Your task to perform on an android device: change the clock style Image 0: 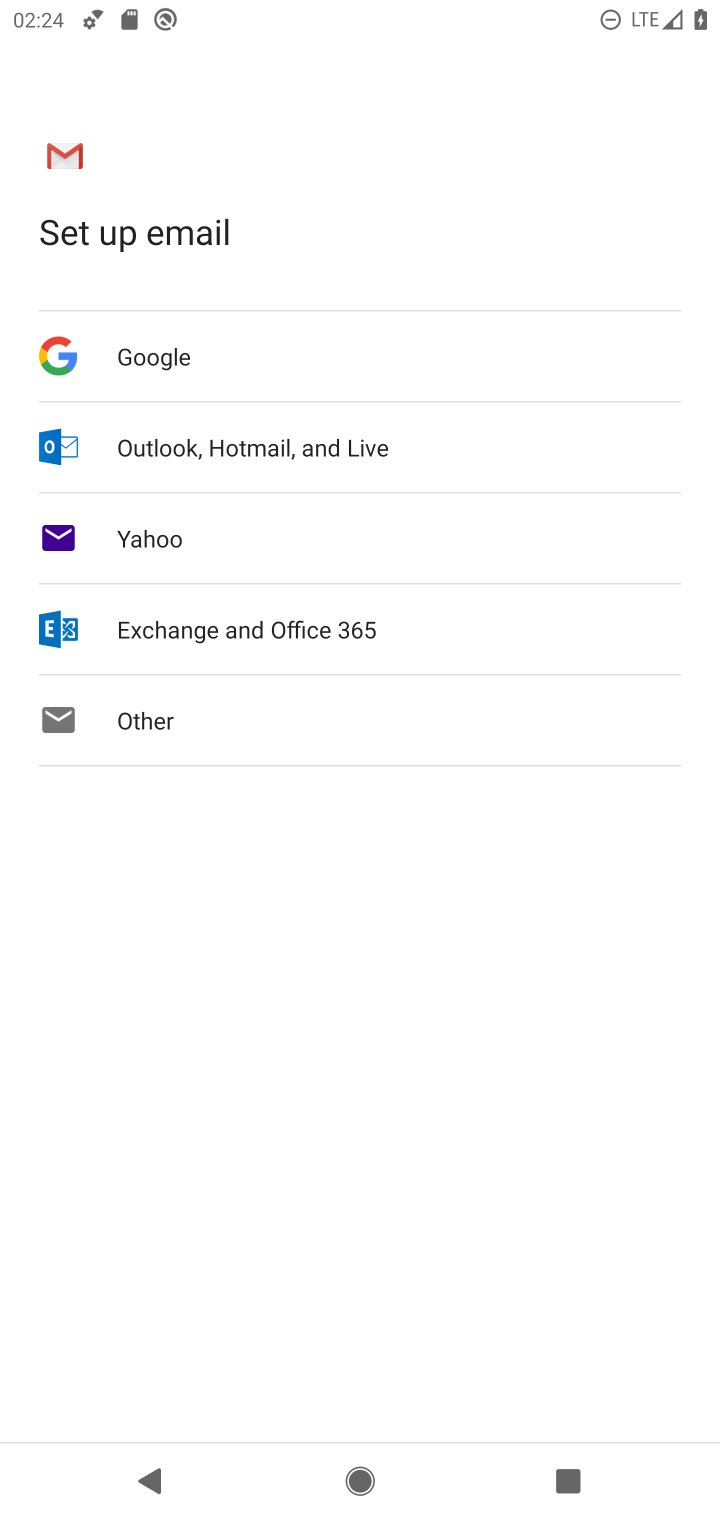
Step 0: press home button
Your task to perform on an android device: change the clock style Image 1: 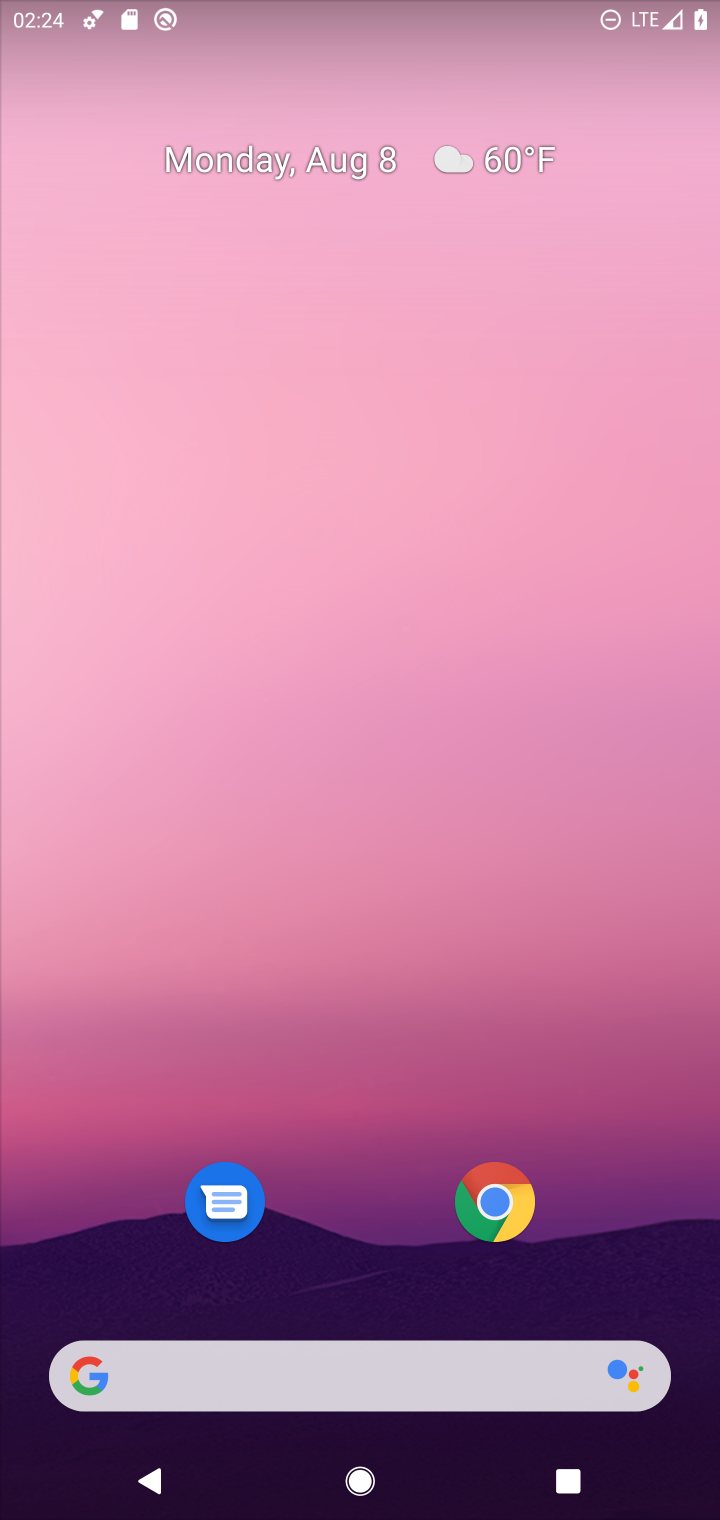
Step 1: drag from (608, 1269) to (563, 179)
Your task to perform on an android device: change the clock style Image 2: 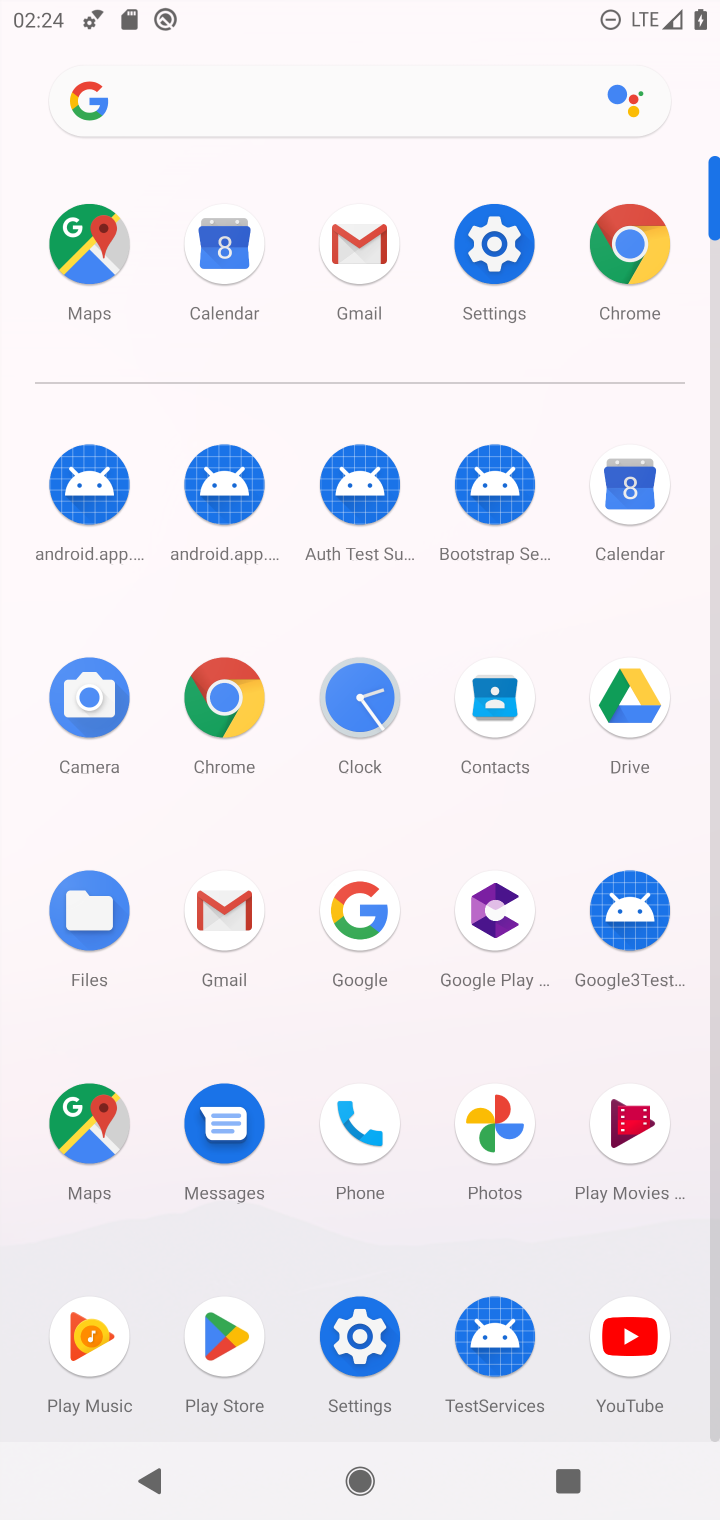
Step 2: click (359, 689)
Your task to perform on an android device: change the clock style Image 3: 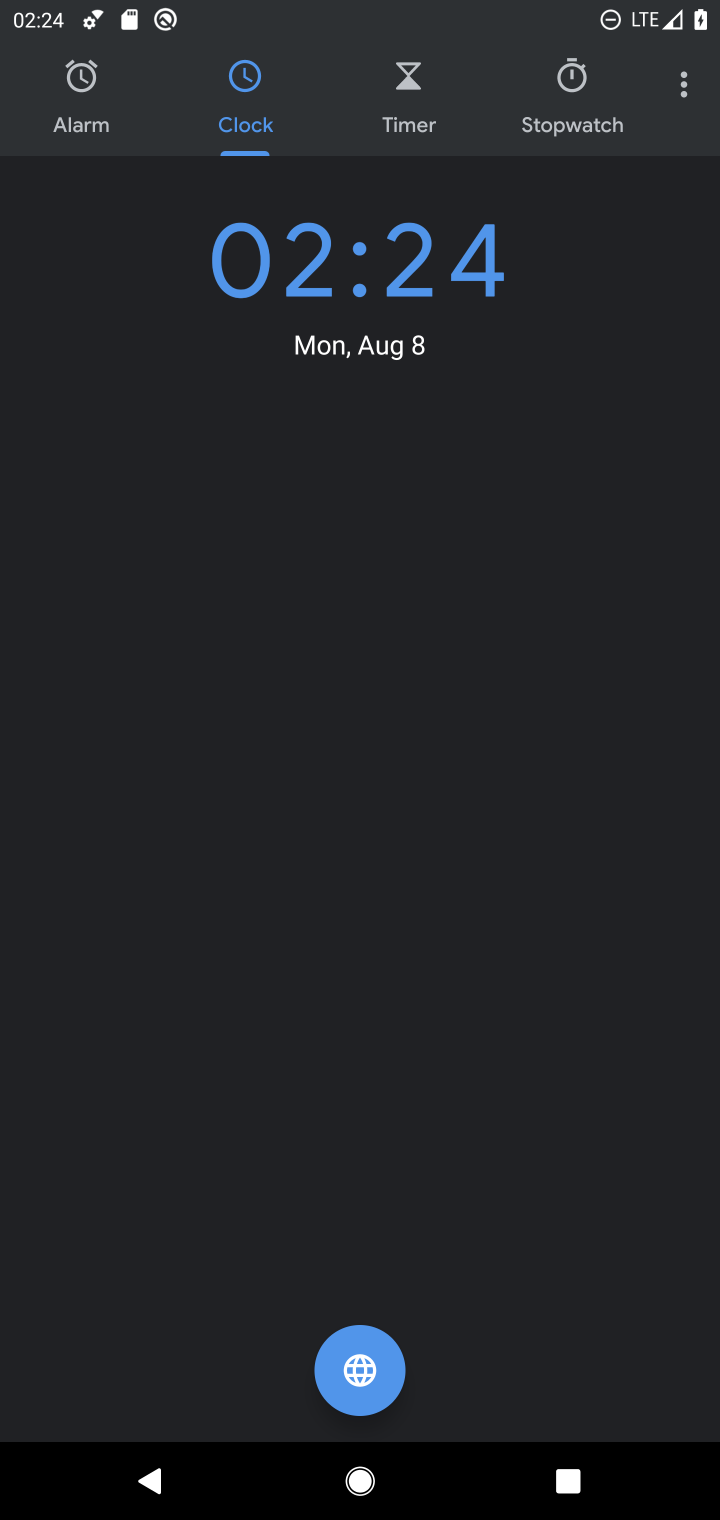
Step 3: click (679, 98)
Your task to perform on an android device: change the clock style Image 4: 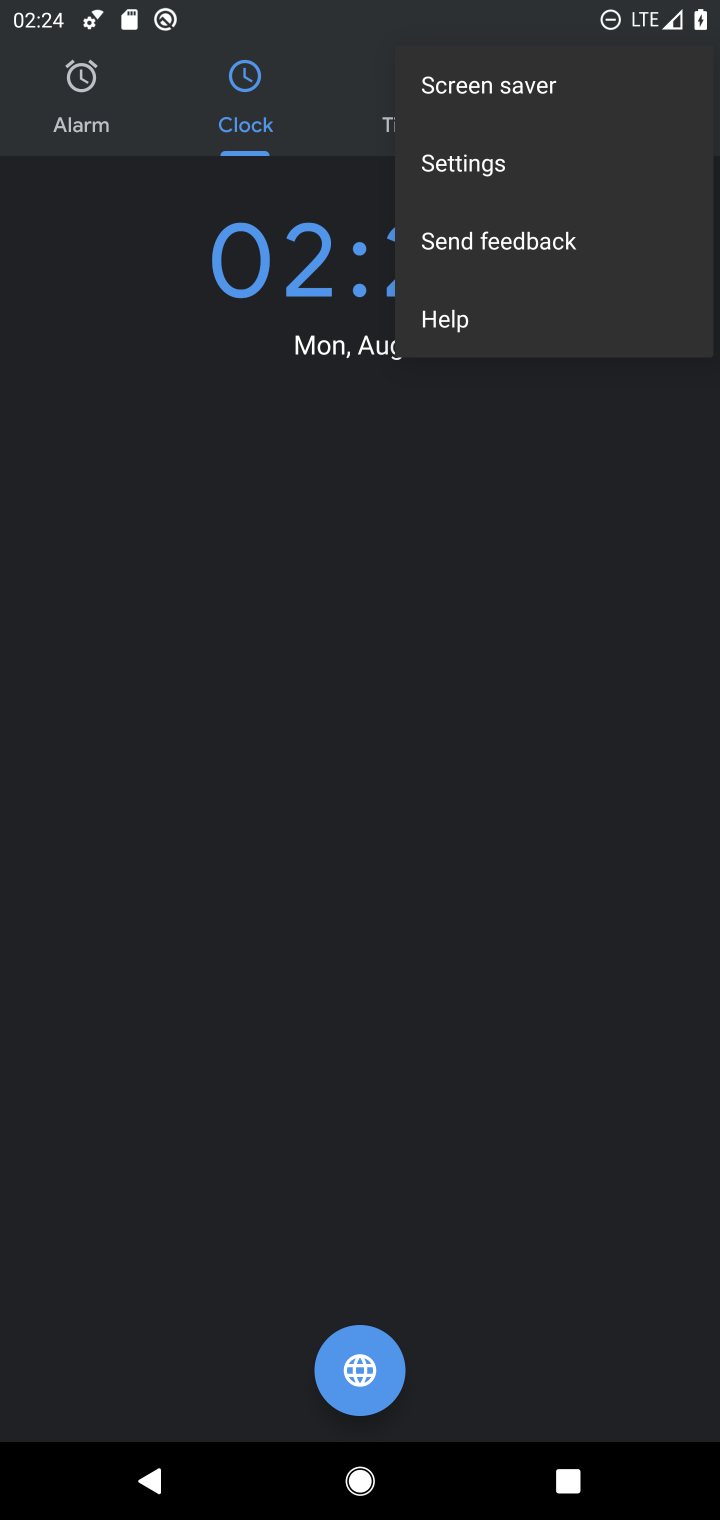
Step 4: click (465, 178)
Your task to perform on an android device: change the clock style Image 5: 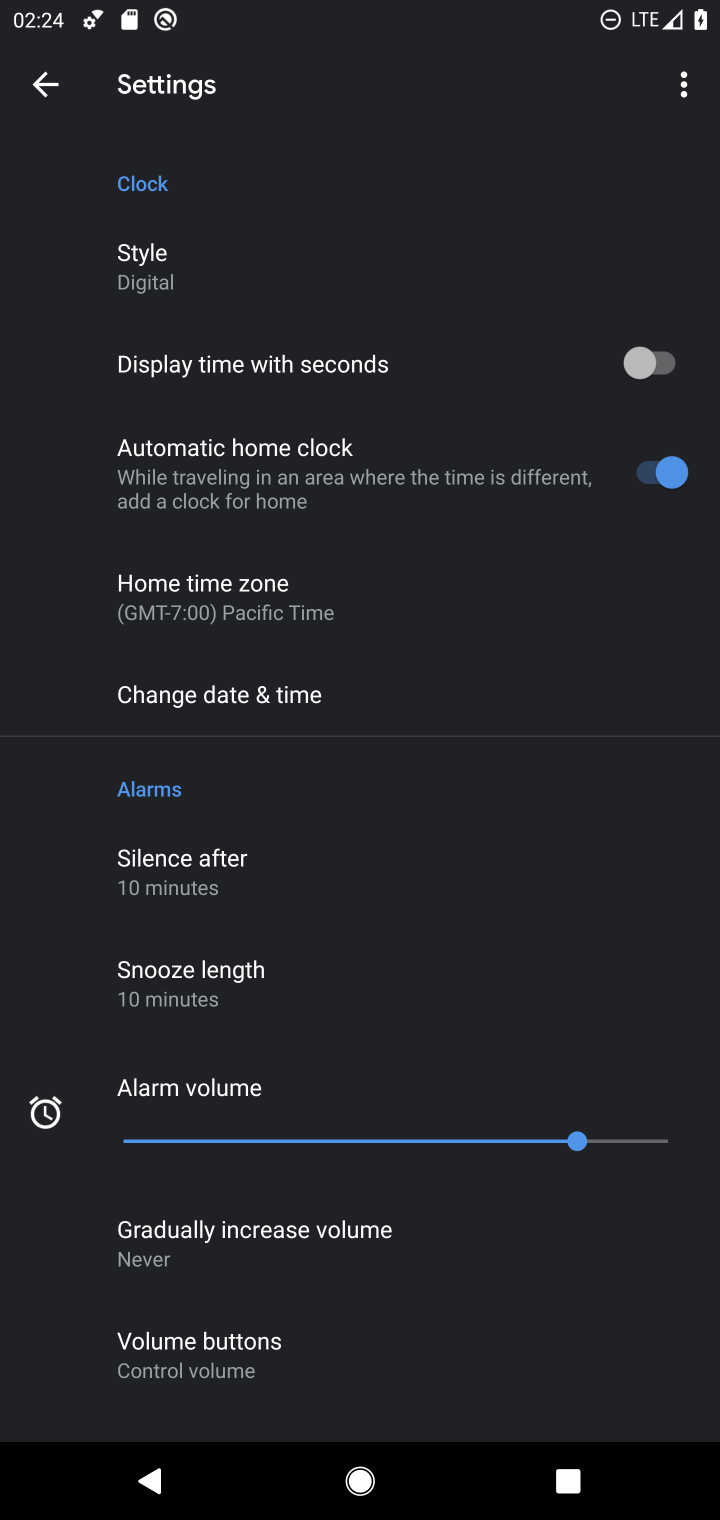
Step 5: drag from (519, 926) to (540, 767)
Your task to perform on an android device: change the clock style Image 6: 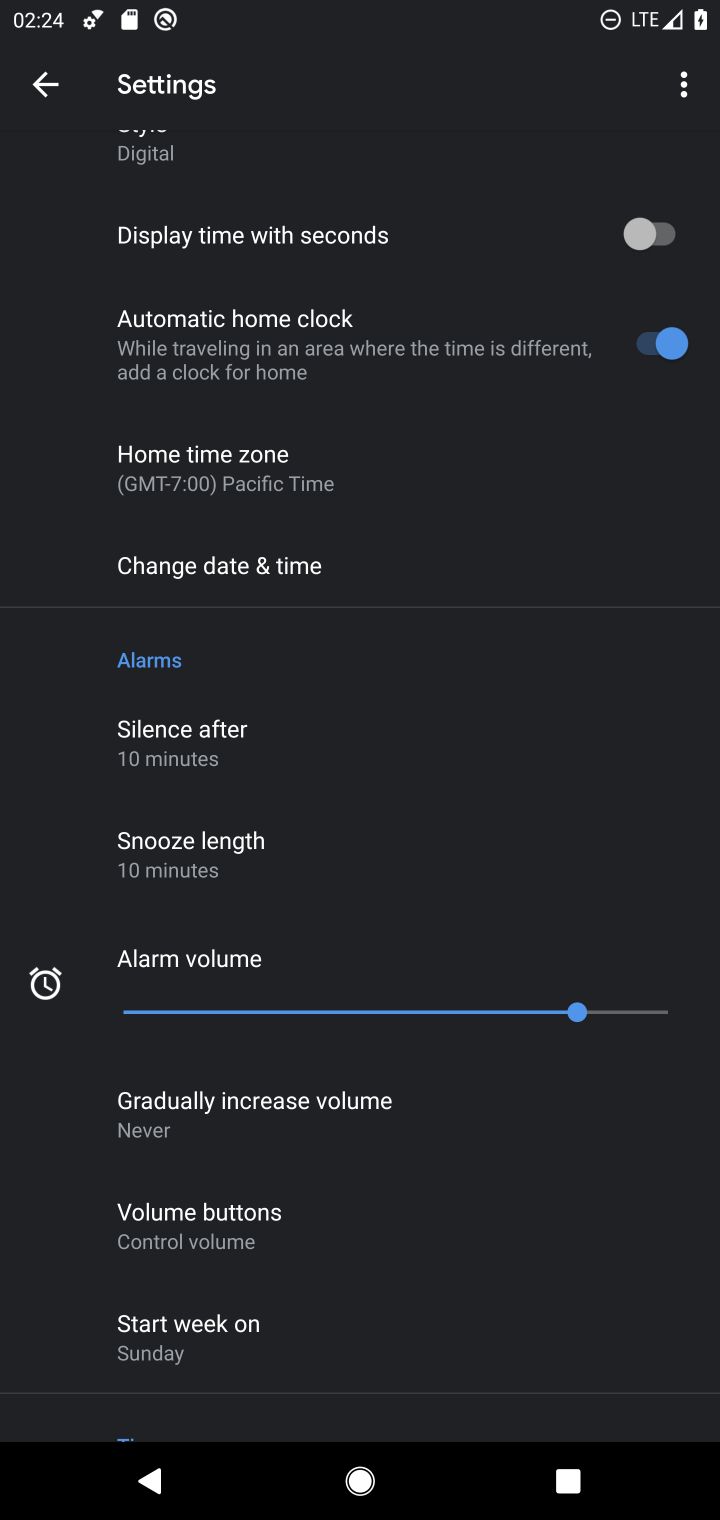
Step 6: drag from (548, 868) to (566, 688)
Your task to perform on an android device: change the clock style Image 7: 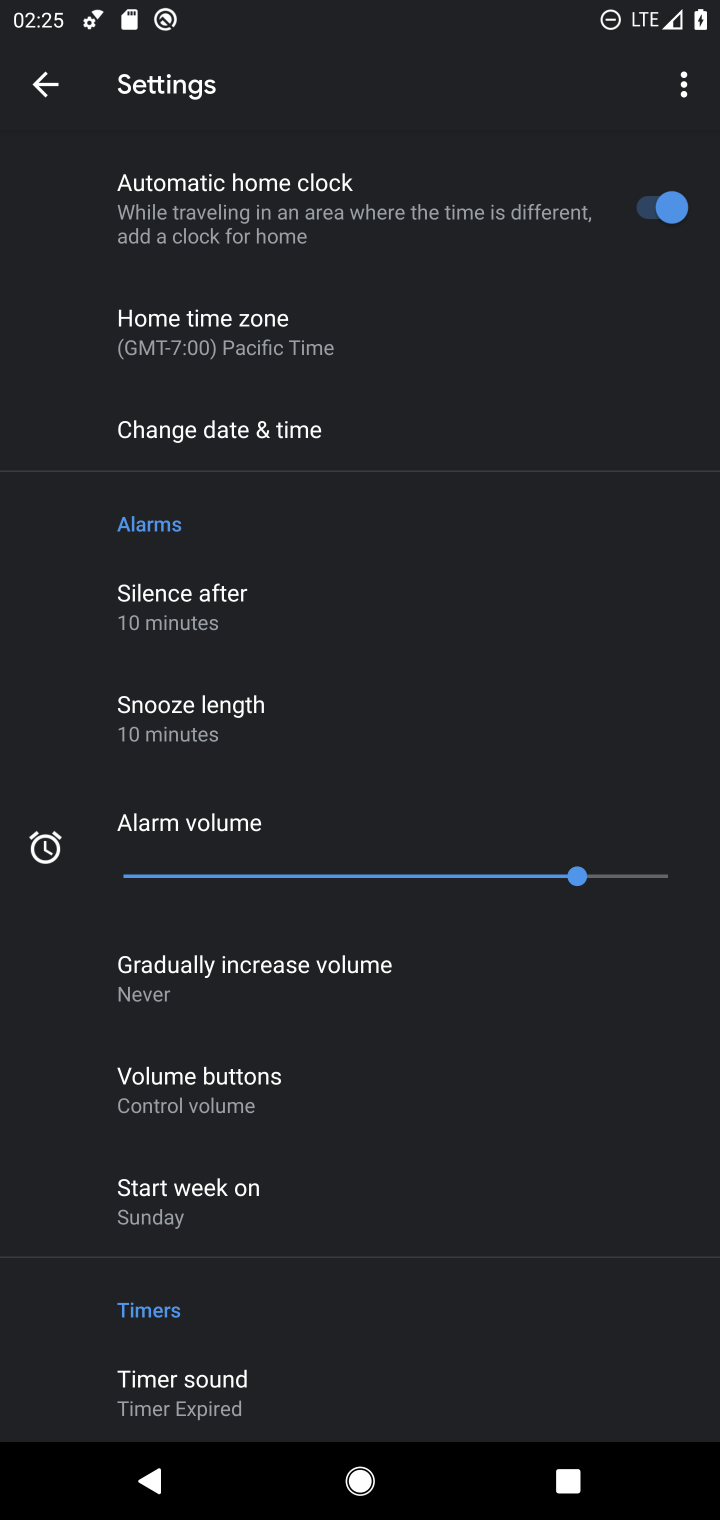
Step 7: drag from (581, 1102) to (609, 848)
Your task to perform on an android device: change the clock style Image 8: 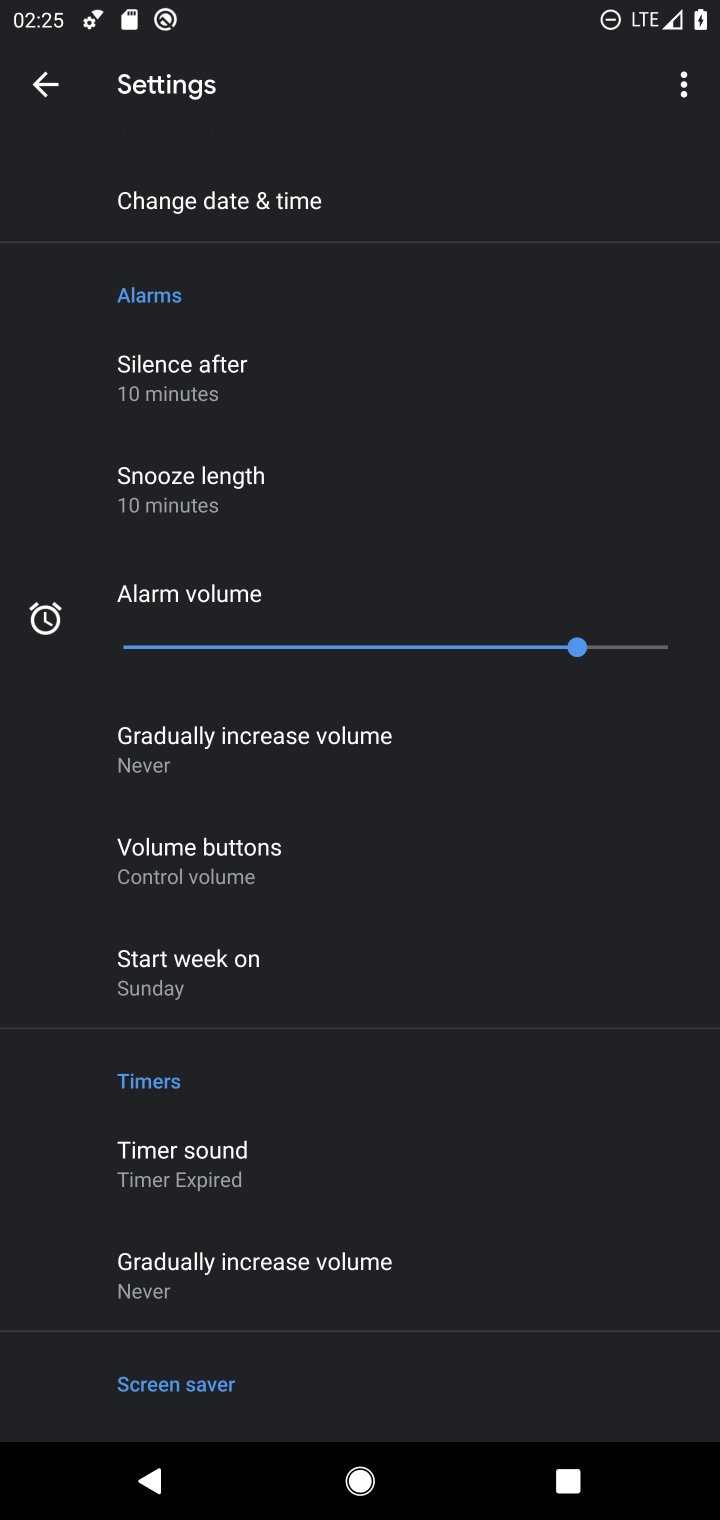
Step 8: drag from (572, 1142) to (588, 846)
Your task to perform on an android device: change the clock style Image 9: 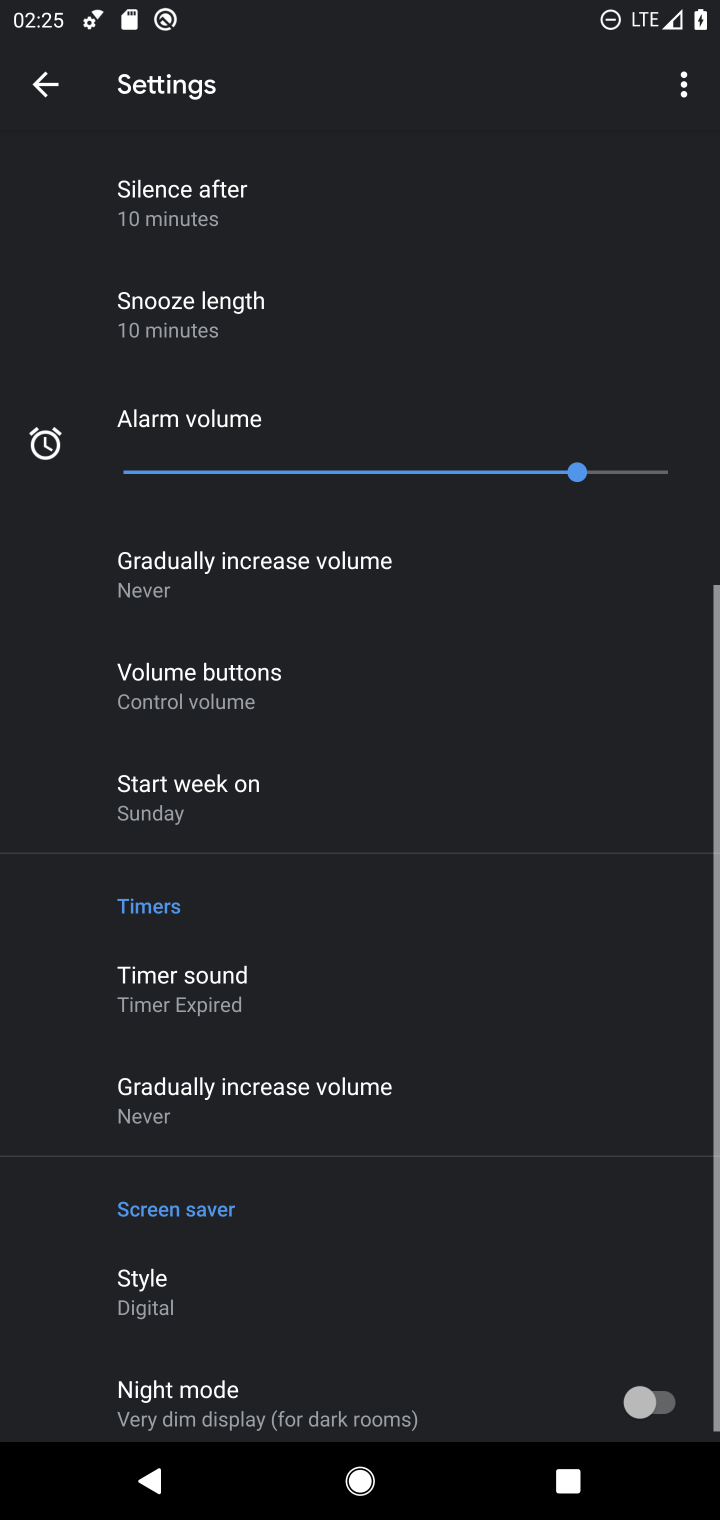
Step 9: drag from (575, 600) to (575, 853)
Your task to perform on an android device: change the clock style Image 10: 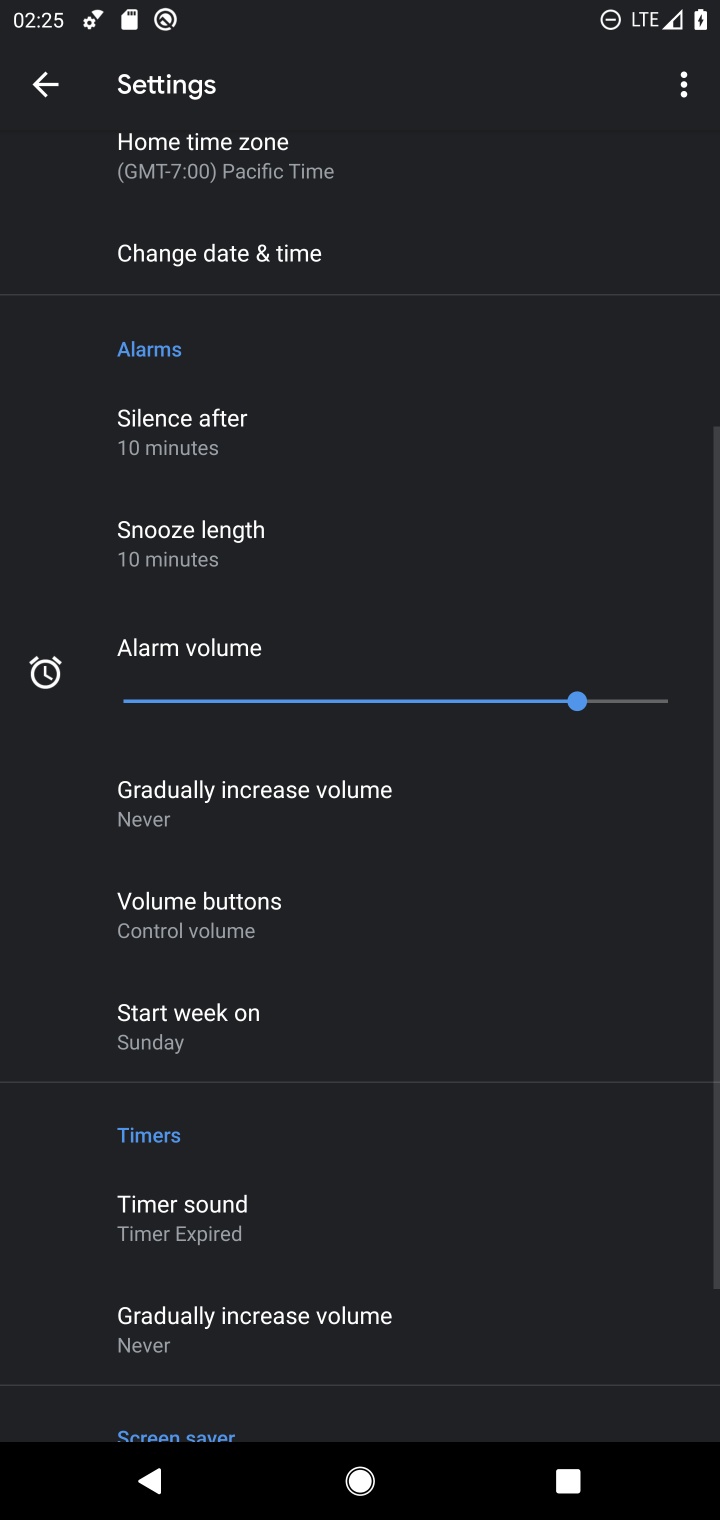
Step 10: drag from (592, 519) to (598, 770)
Your task to perform on an android device: change the clock style Image 11: 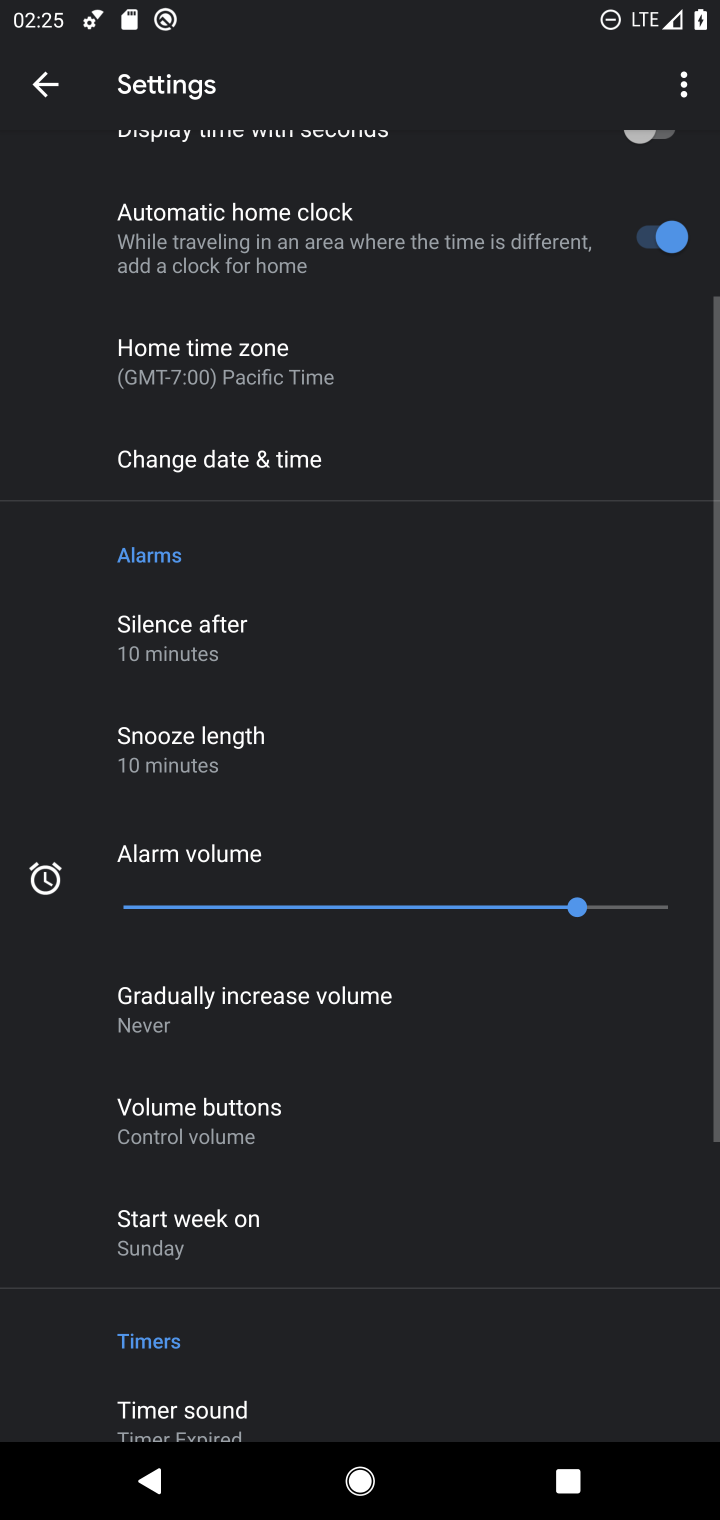
Step 11: drag from (610, 408) to (611, 623)
Your task to perform on an android device: change the clock style Image 12: 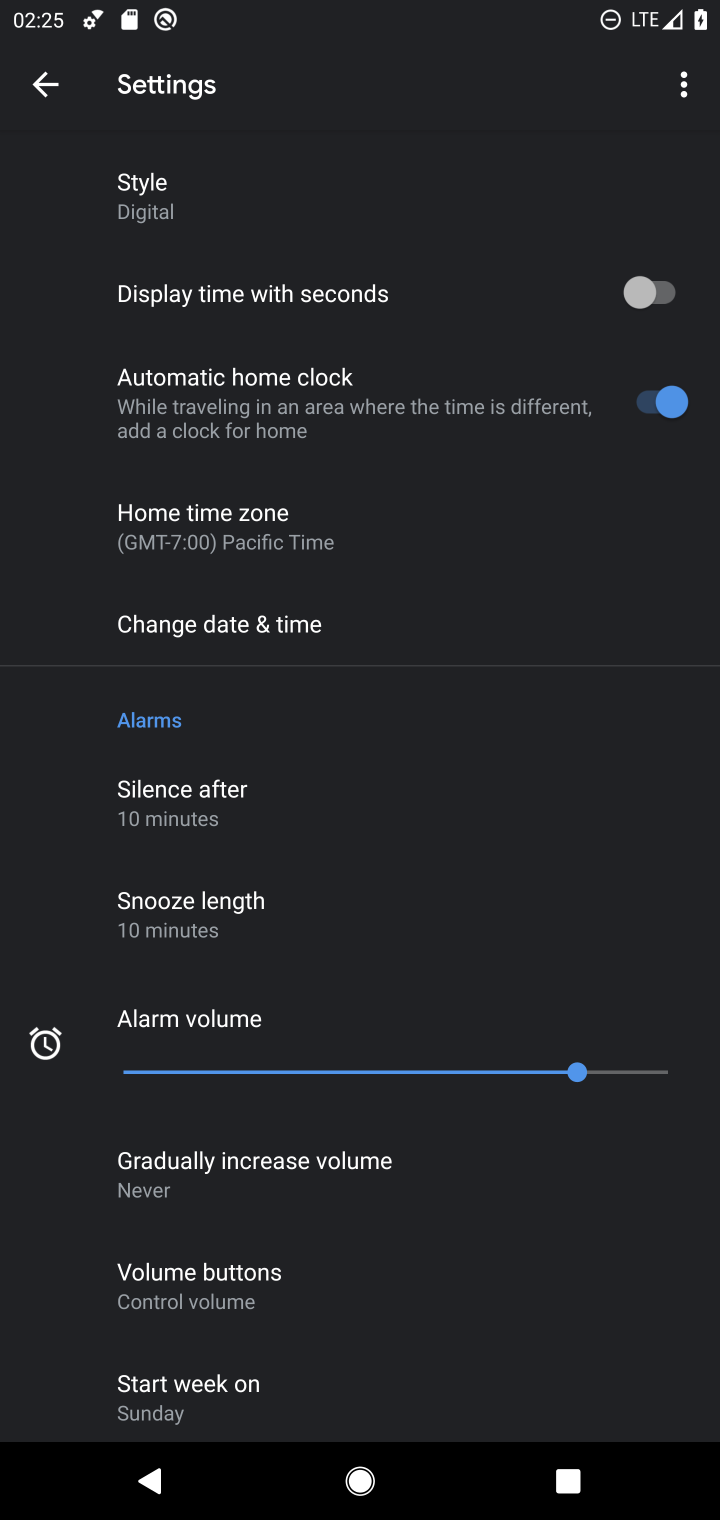
Step 12: drag from (450, 224) to (487, 669)
Your task to perform on an android device: change the clock style Image 13: 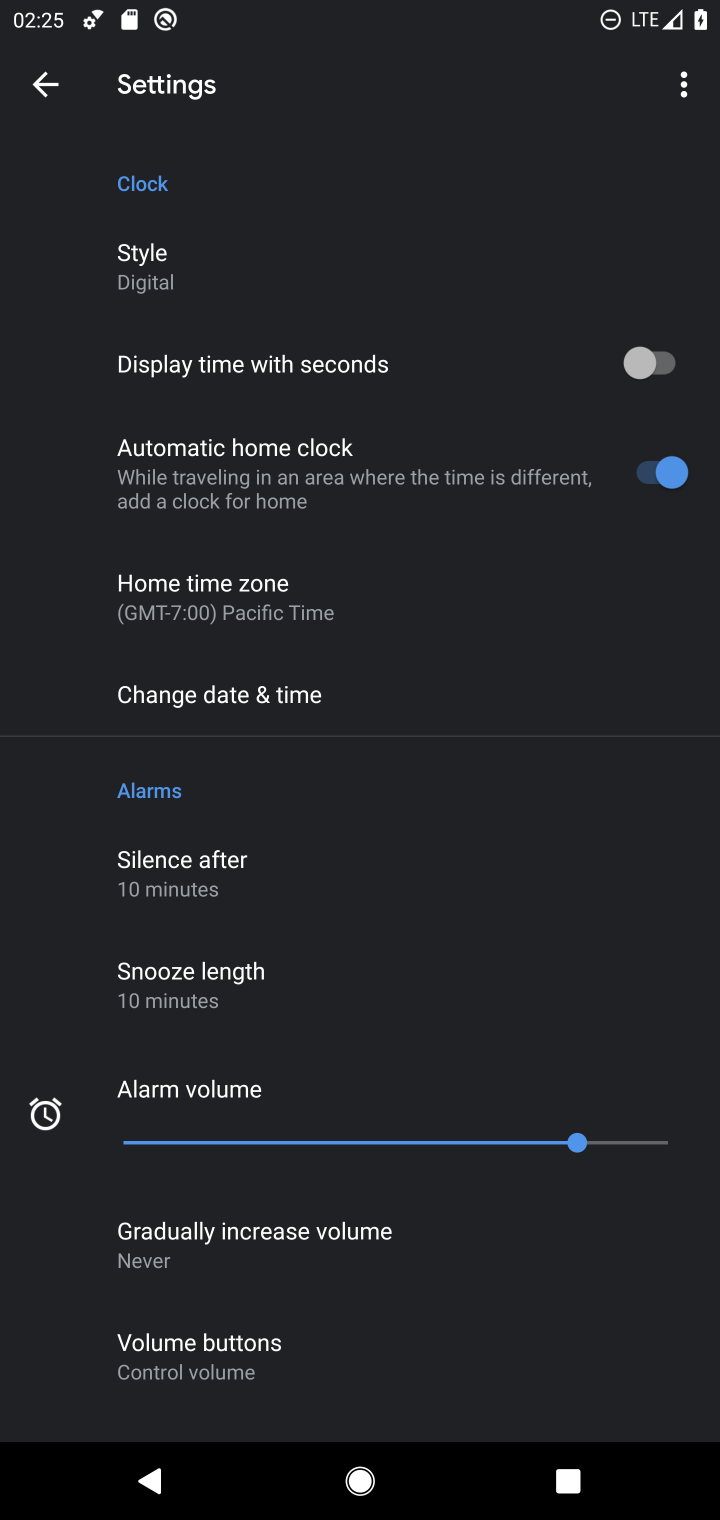
Step 13: click (246, 267)
Your task to perform on an android device: change the clock style Image 14: 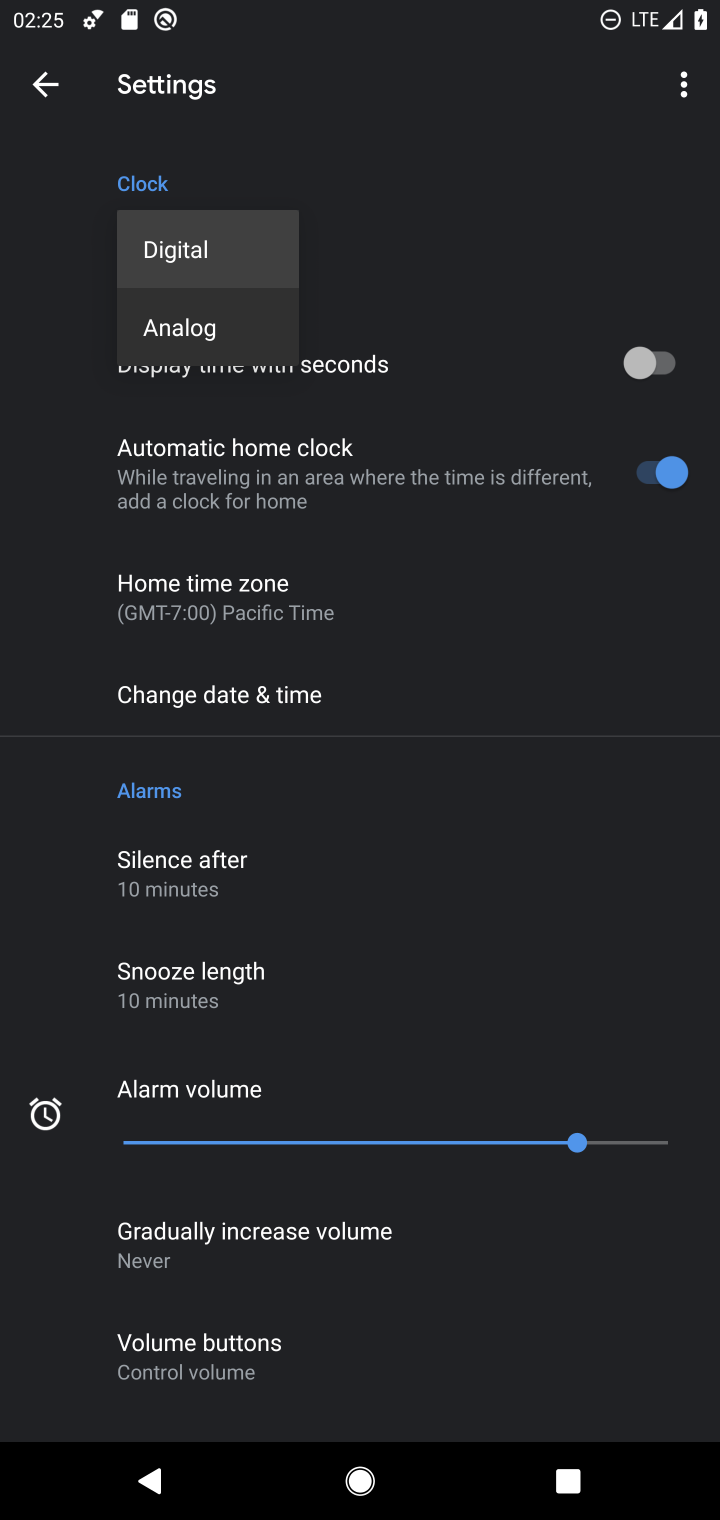
Step 14: click (246, 322)
Your task to perform on an android device: change the clock style Image 15: 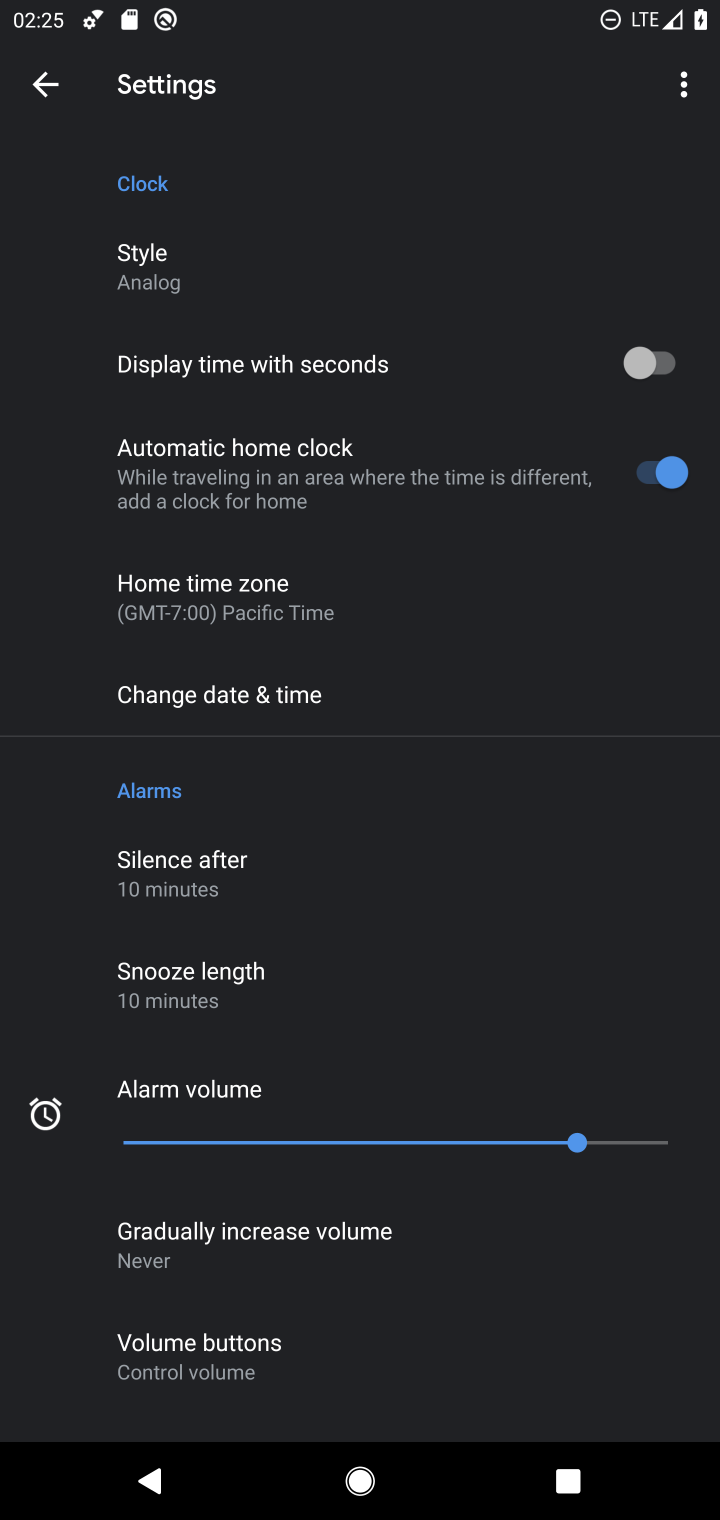
Step 15: task complete